Your task to perform on an android device: Do I have any events tomorrow? Image 0: 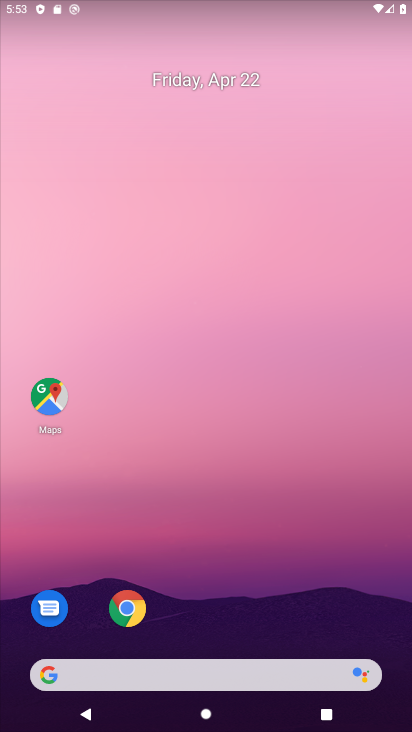
Step 0: drag from (245, 598) to (226, 164)
Your task to perform on an android device: Do I have any events tomorrow? Image 1: 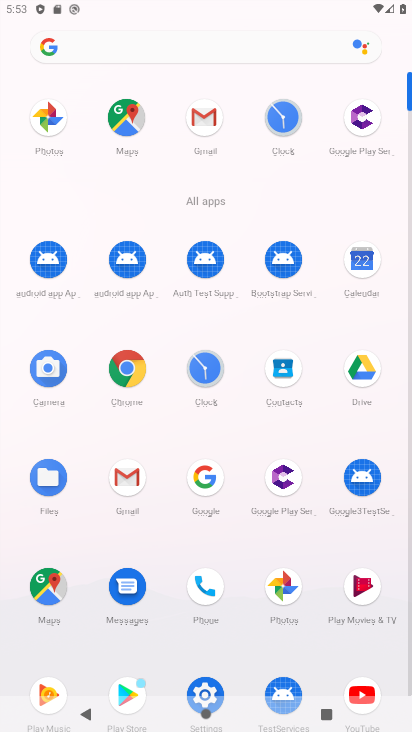
Step 1: click (366, 267)
Your task to perform on an android device: Do I have any events tomorrow? Image 2: 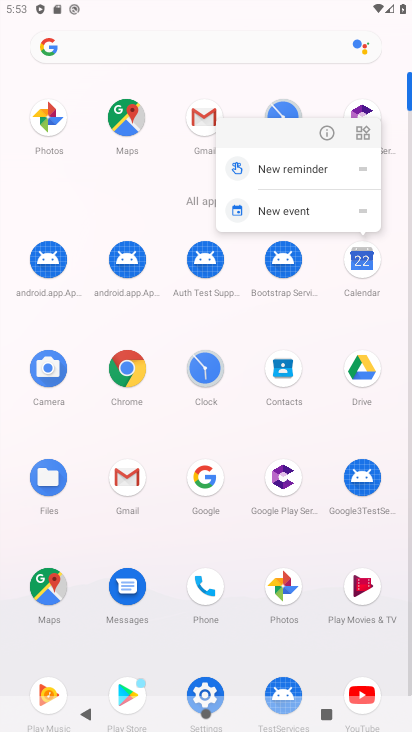
Step 2: click (366, 267)
Your task to perform on an android device: Do I have any events tomorrow? Image 3: 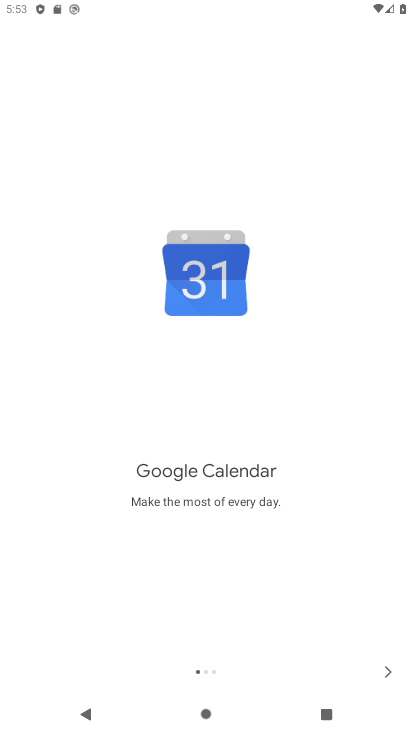
Step 3: click (389, 673)
Your task to perform on an android device: Do I have any events tomorrow? Image 4: 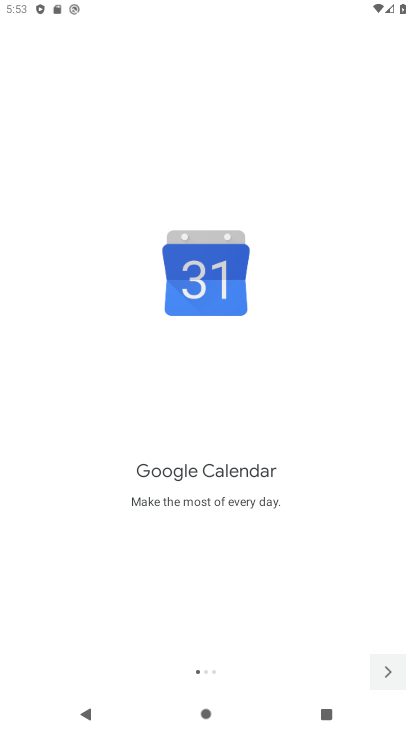
Step 4: click (389, 673)
Your task to perform on an android device: Do I have any events tomorrow? Image 5: 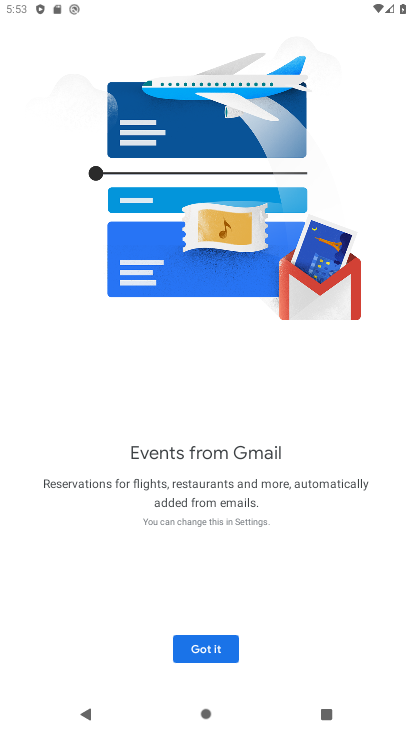
Step 5: click (389, 673)
Your task to perform on an android device: Do I have any events tomorrow? Image 6: 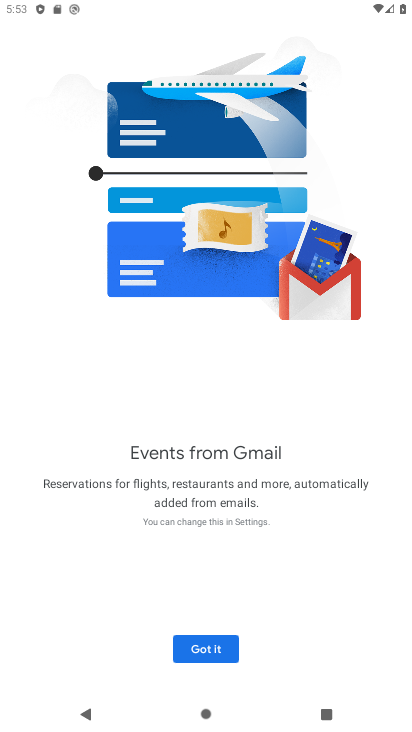
Step 6: click (201, 644)
Your task to perform on an android device: Do I have any events tomorrow? Image 7: 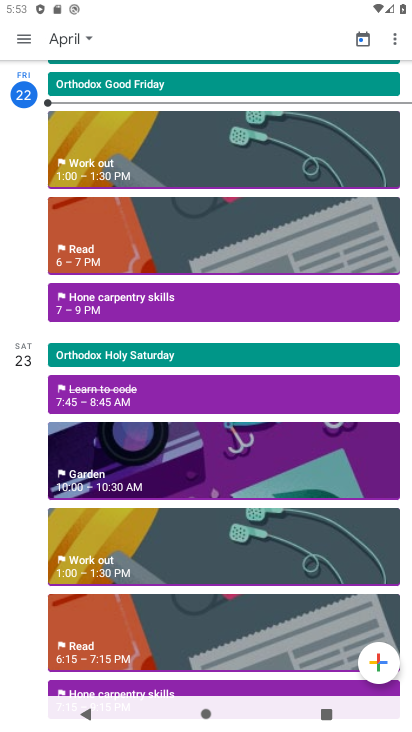
Step 7: click (64, 38)
Your task to perform on an android device: Do I have any events tomorrow? Image 8: 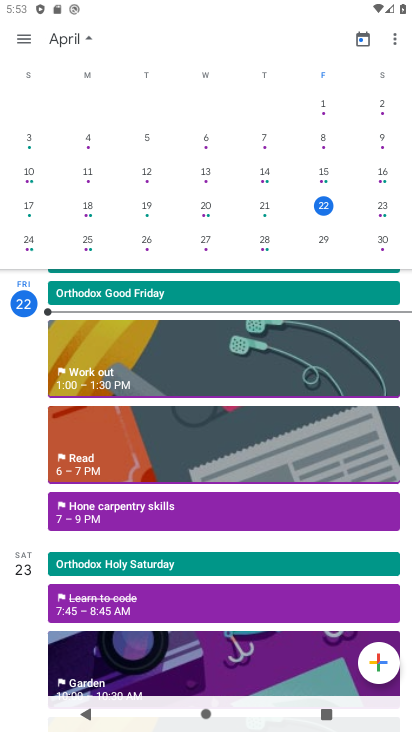
Step 8: task complete